Your task to perform on an android device: toggle show notifications on the lock screen Image 0: 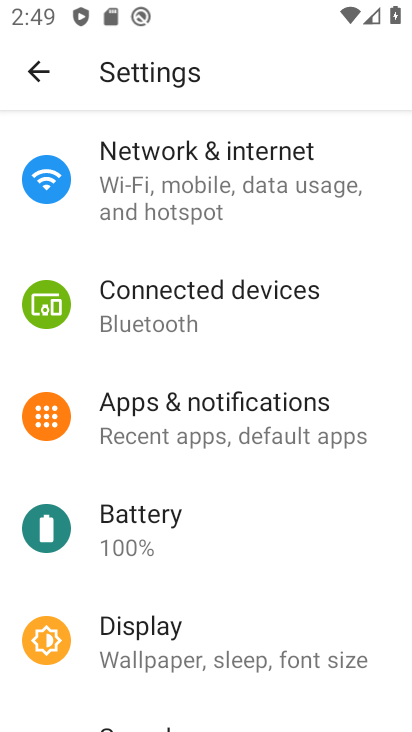
Step 0: click (267, 427)
Your task to perform on an android device: toggle show notifications on the lock screen Image 1: 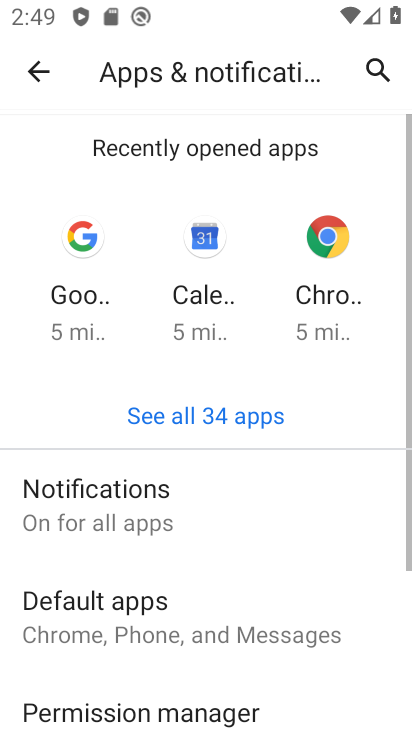
Step 1: drag from (297, 679) to (266, 103)
Your task to perform on an android device: toggle show notifications on the lock screen Image 2: 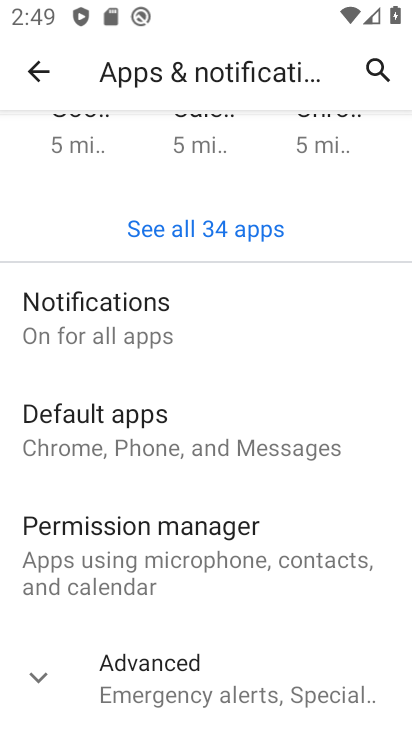
Step 2: click (181, 324)
Your task to perform on an android device: toggle show notifications on the lock screen Image 3: 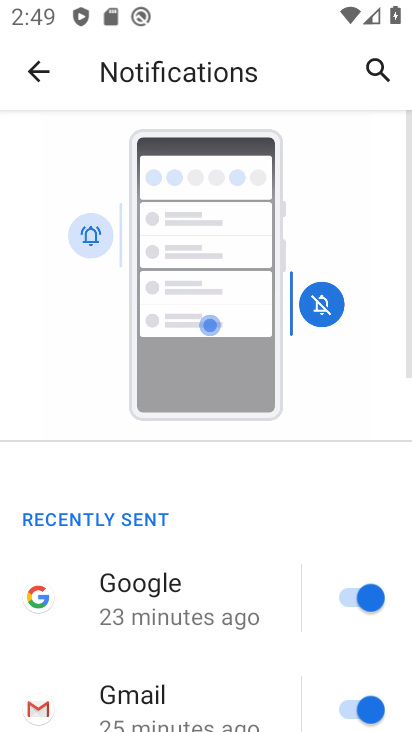
Step 3: drag from (205, 708) to (312, 110)
Your task to perform on an android device: toggle show notifications on the lock screen Image 4: 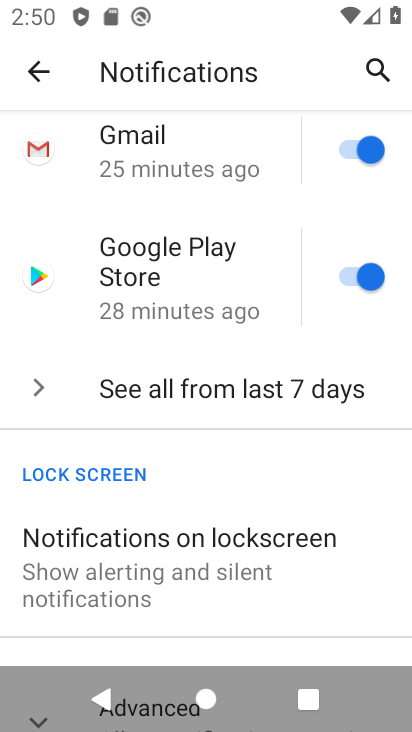
Step 4: click (267, 558)
Your task to perform on an android device: toggle show notifications on the lock screen Image 5: 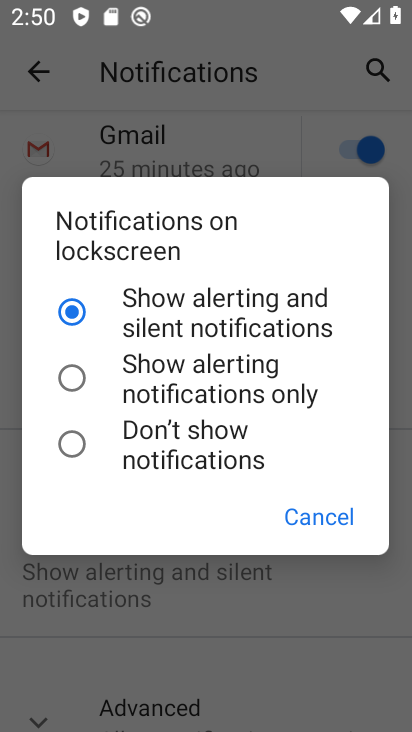
Step 5: click (74, 369)
Your task to perform on an android device: toggle show notifications on the lock screen Image 6: 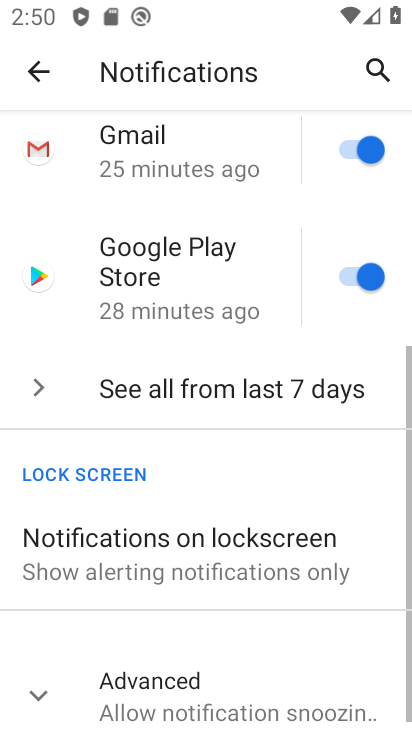
Step 6: task complete